Your task to perform on an android device: make emails show in primary in the gmail app Image 0: 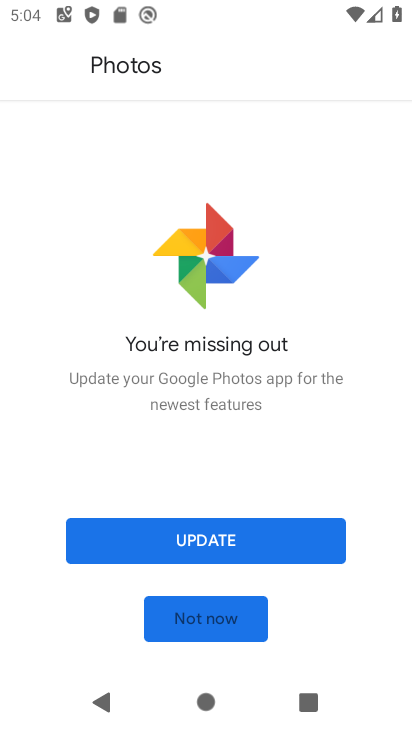
Step 0: press home button
Your task to perform on an android device: make emails show in primary in the gmail app Image 1: 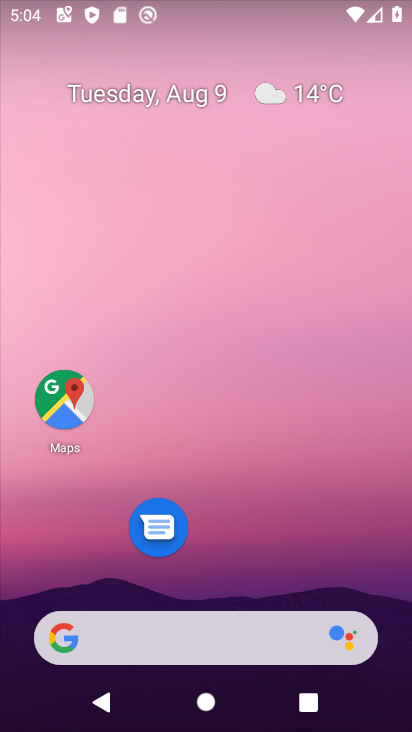
Step 1: drag from (210, 542) to (229, 70)
Your task to perform on an android device: make emails show in primary in the gmail app Image 2: 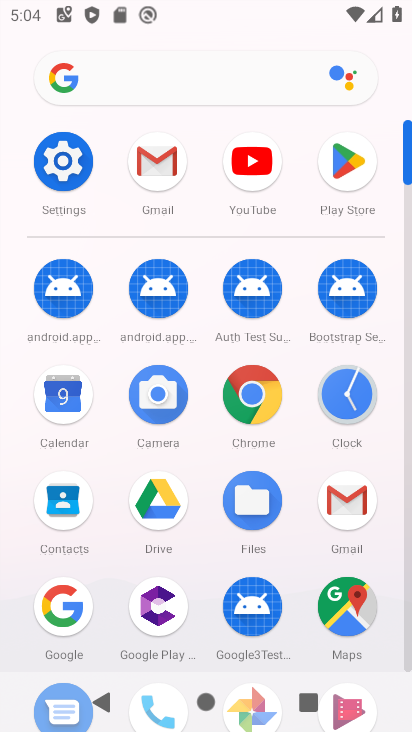
Step 2: click (159, 150)
Your task to perform on an android device: make emails show in primary in the gmail app Image 3: 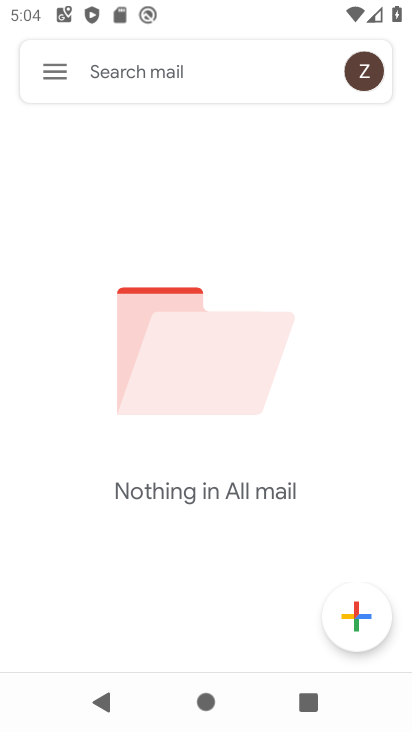
Step 3: click (53, 61)
Your task to perform on an android device: make emails show in primary in the gmail app Image 4: 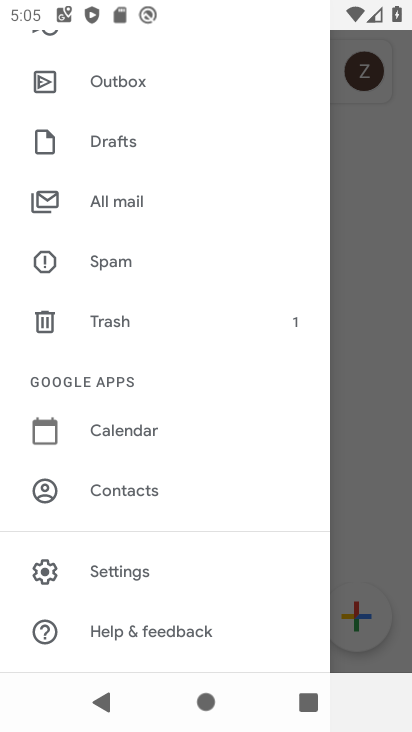
Step 4: task complete